Your task to perform on an android device: turn off location history Image 0: 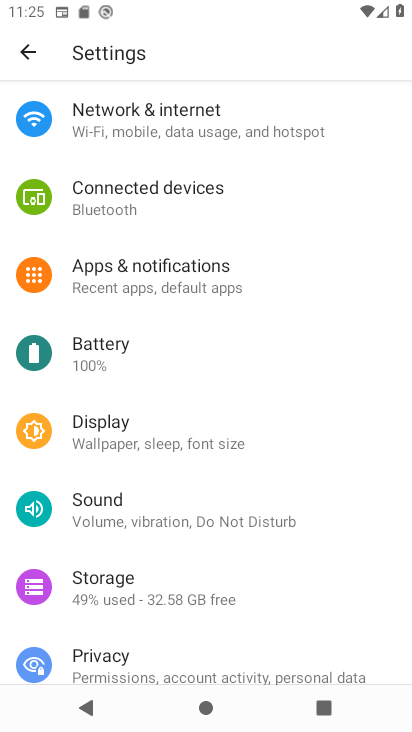
Step 0: drag from (136, 623) to (279, 160)
Your task to perform on an android device: turn off location history Image 1: 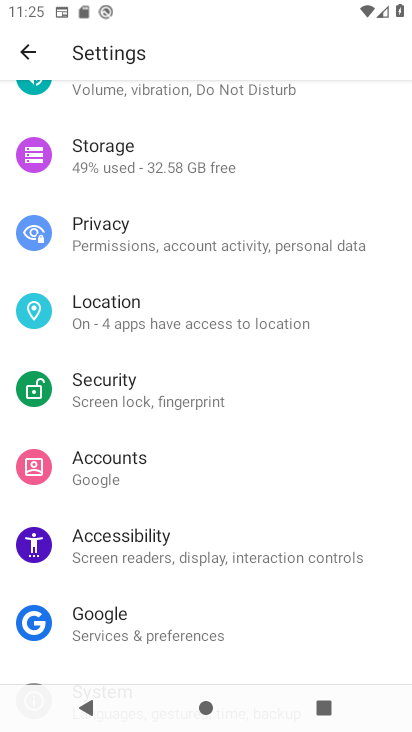
Step 1: click (77, 663)
Your task to perform on an android device: turn off location history Image 2: 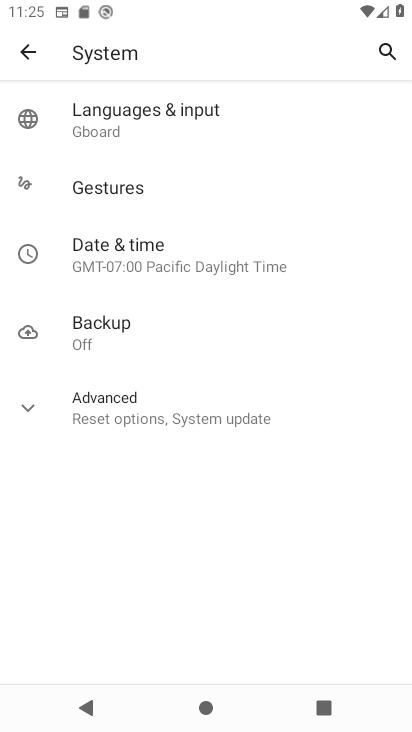
Step 2: click (139, 322)
Your task to perform on an android device: turn off location history Image 3: 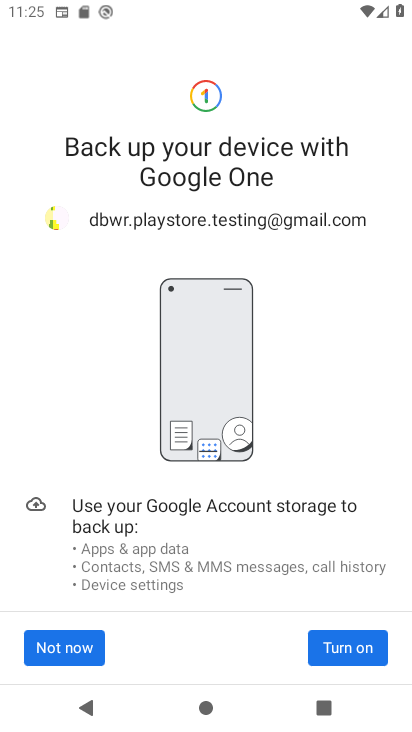
Step 3: task complete